Your task to perform on an android device: move a message to another label in the gmail app Image 0: 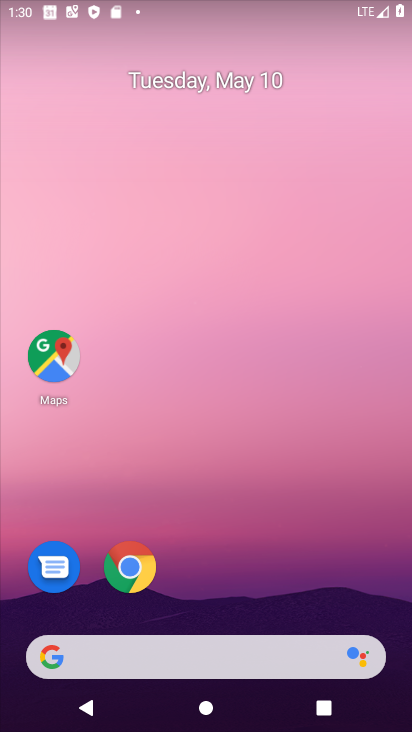
Step 0: drag from (390, 658) to (342, 116)
Your task to perform on an android device: move a message to another label in the gmail app Image 1: 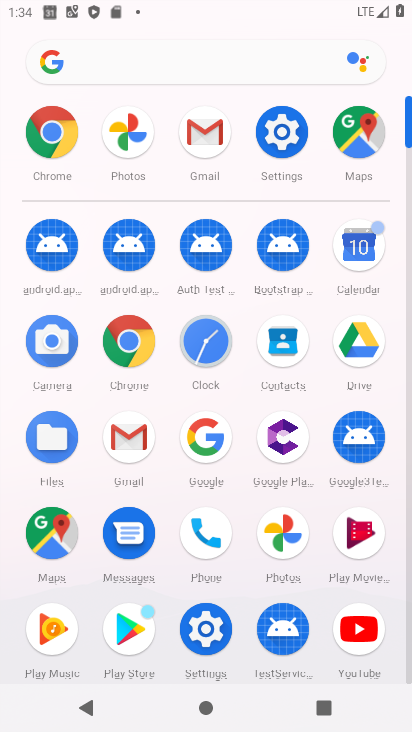
Step 1: click (188, 146)
Your task to perform on an android device: move a message to another label in the gmail app Image 2: 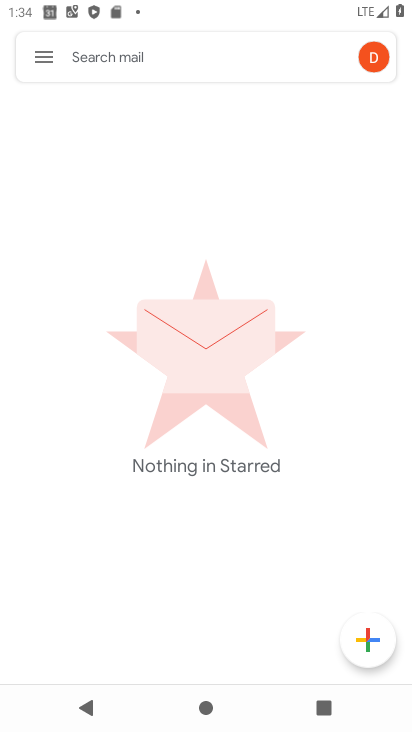
Step 2: task complete